Your task to perform on an android device: Go to Amazon Image 0: 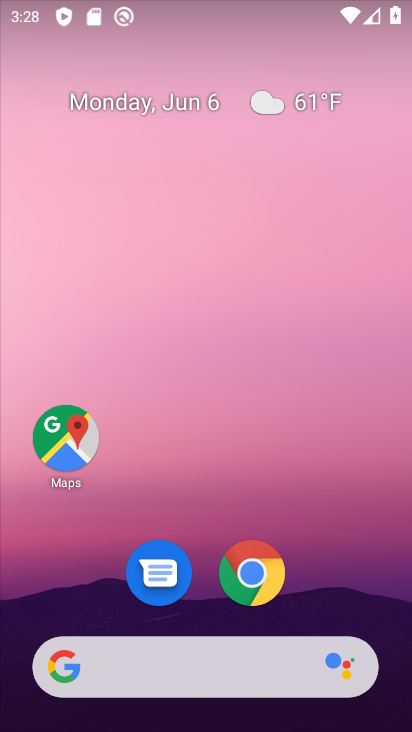
Step 0: click (240, 589)
Your task to perform on an android device: Go to Amazon Image 1: 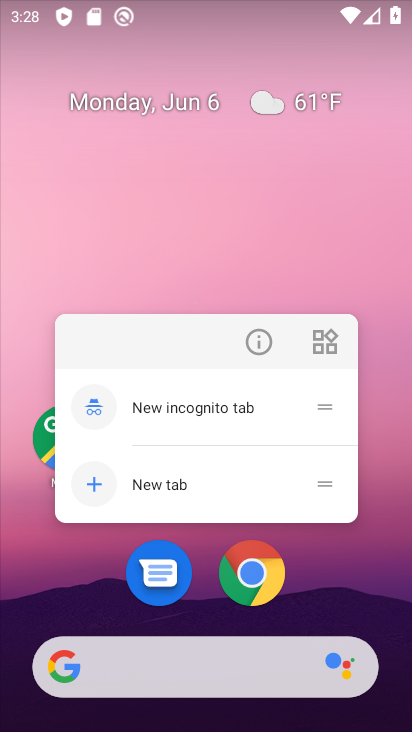
Step 1: click (236, 580)
Your task to perform on an android device: Go to Amazon Image 2: 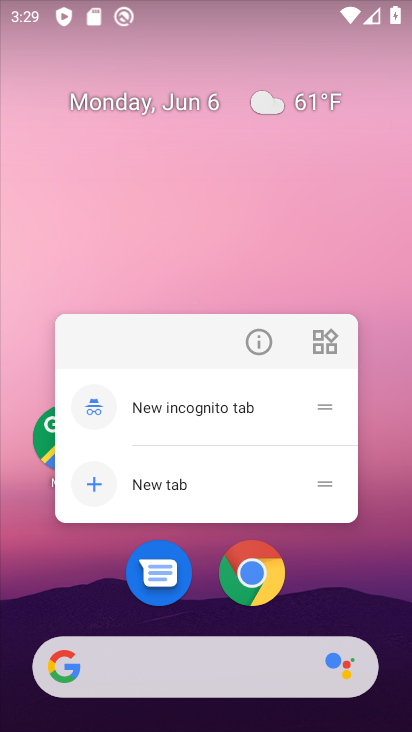
Step 2: click (224, 574)
Your task to perform on an android device: Go to Amazon Image 3: 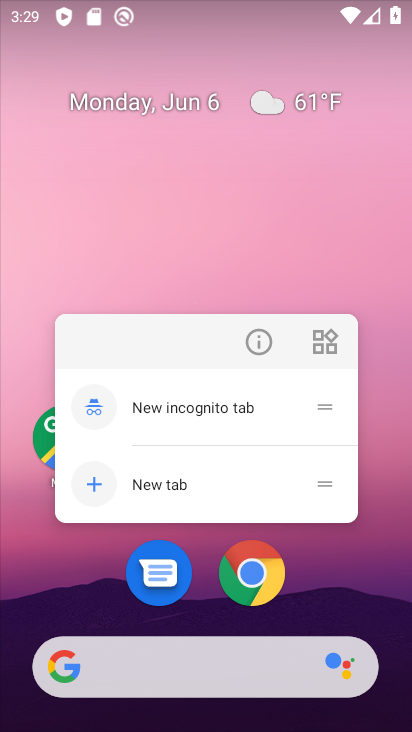
Step 3: click (240, 576)
Your task to perform on an android device: Go to Amazon Image 4: 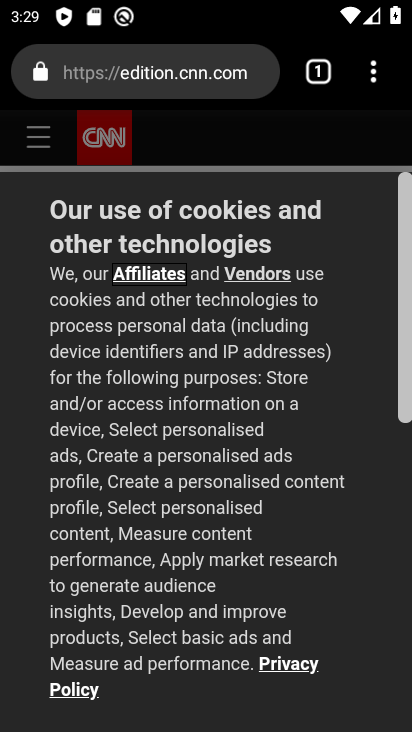
Step 4: click (315, 80)
Your task to perform on an android device: Go to Amazon Image 5: 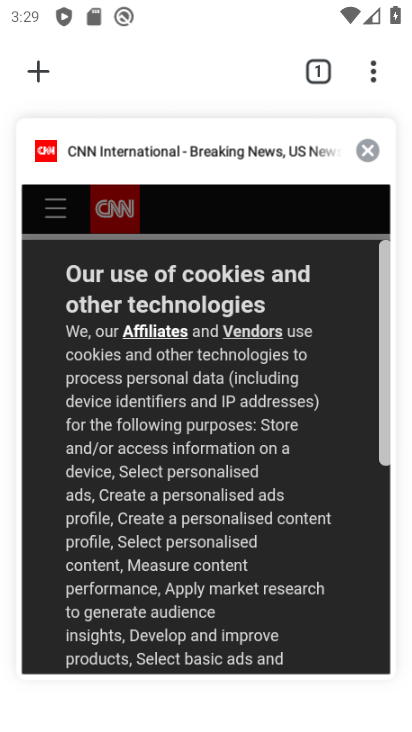
Step 5: click (367, 146)
Your task to perform on an android device: Go to Amazon Image 6: 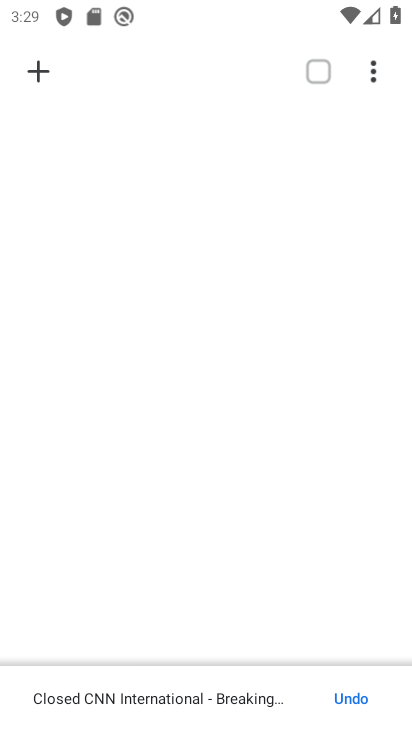
Step 6: click (35, 76)
Your task to perform on an android device: Go to Amazon Image 7: 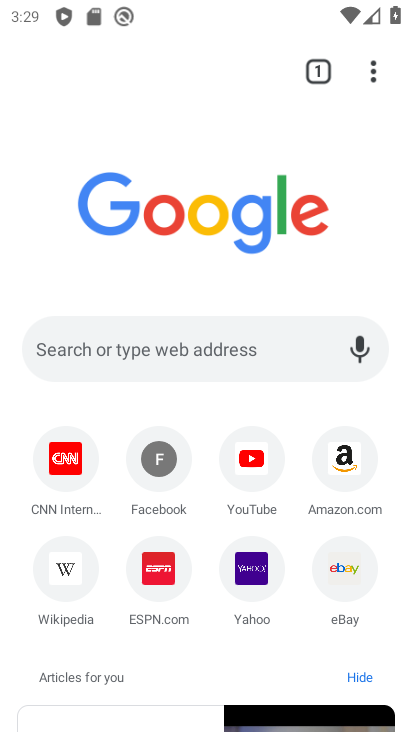
Step 7: click (355, 468)
Your task to perform on an android device: Go to Amazon Image 8: 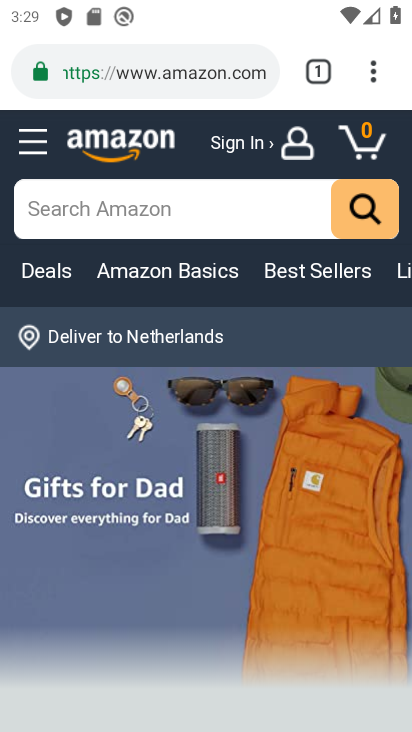
Step 8: task complete